Your task to perform on an android device: Open calendar and show me the second week of next month Image 0: 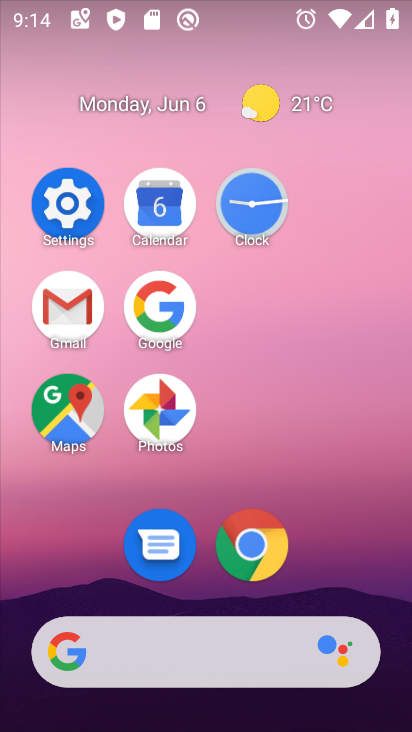
Step 0: click (170, 216)
Your task to perform on an android device: Open calendar and show me the second week of next month Image 1: 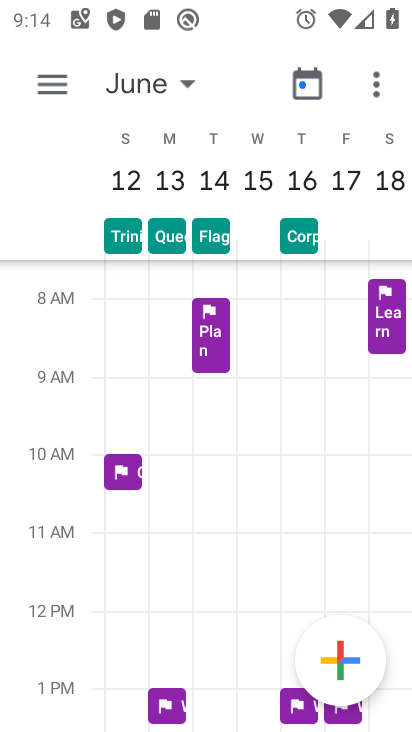
Step 1: click (181, 97)
Your task to perform on an android device: Open calendar and show me the second week of next month Image 2: 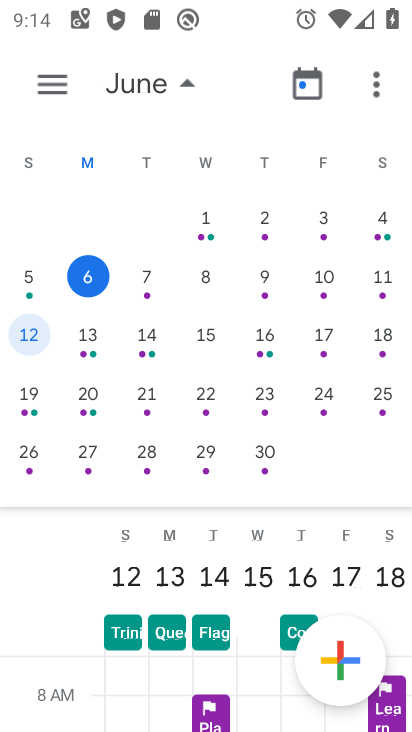
Step 2: drag from (378, 352) to (5, 257)
Your task to perform on an android device: Open calendar and show me the second week of next month Image 3: 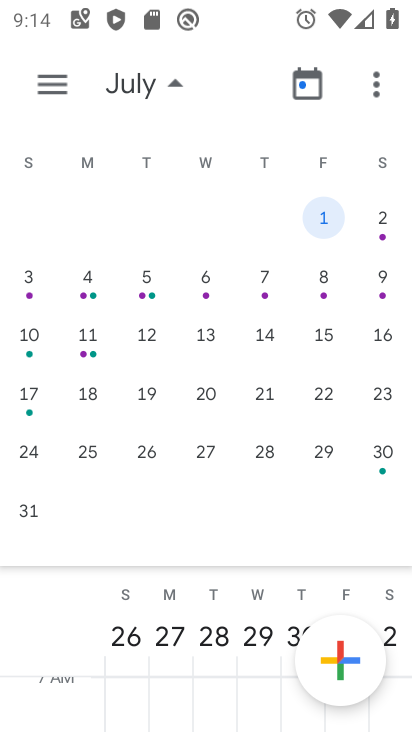
Step 3: click (55, 100)
Your task to perform on an android device: Open calendar and show me the second week of next month Image 4: 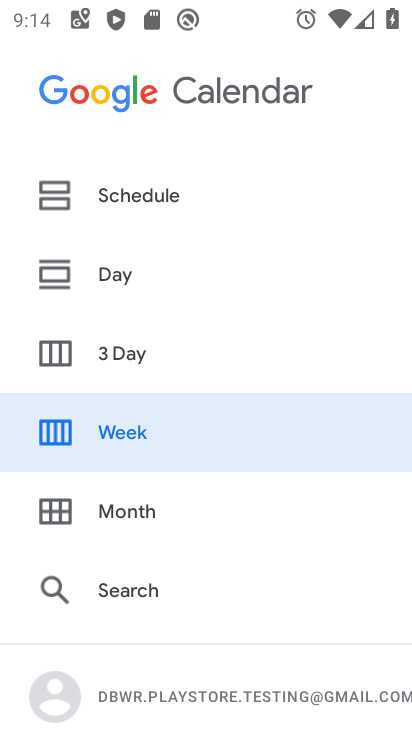
Step 4: click (136, 447)
Your task to perform on an android device: Open calendar and show me the second week of next month Image 5: 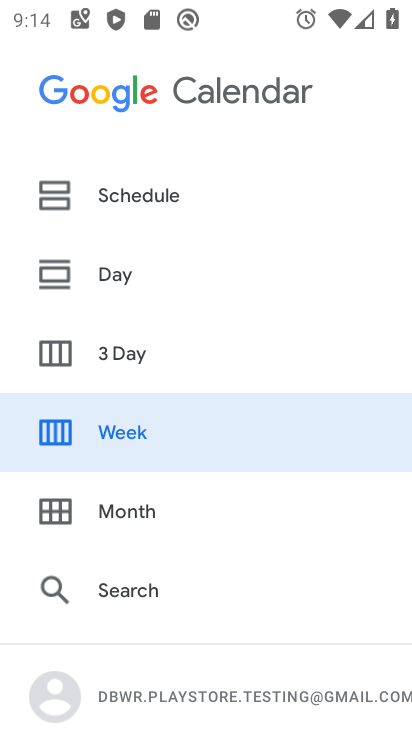
Step 5: click (293, 442)
Your task to perform on an android device: Open calendar and show me the second week of next month Image 6: 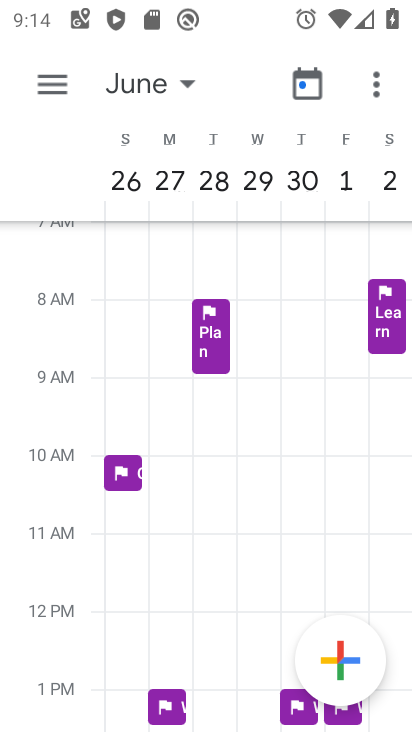
Step 6: task complete